Your task to perform on an android device: all mails in gmail Image 0: 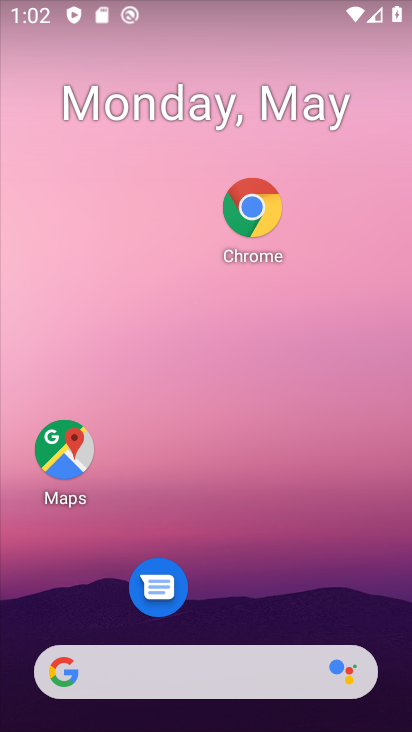
Step 0: drag from (264, 628) to (262, 111)
Your task to perform on an android device: all mails in gmail Image 1: 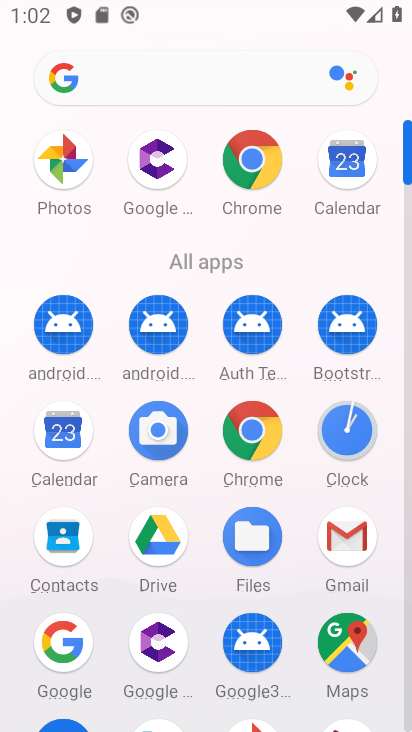
Step 1: click (337, 552)
Your task to perform on an android device: all mails in gmail Image 2: 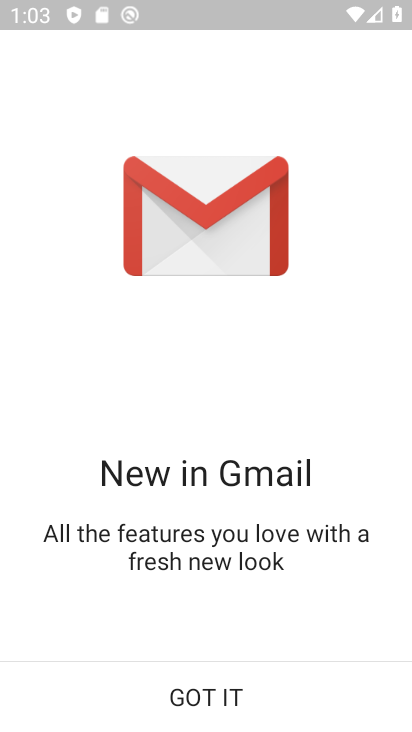
Step 2: click (185, 687)
Your task to perform on an android device: all mails in gmail Image 3: 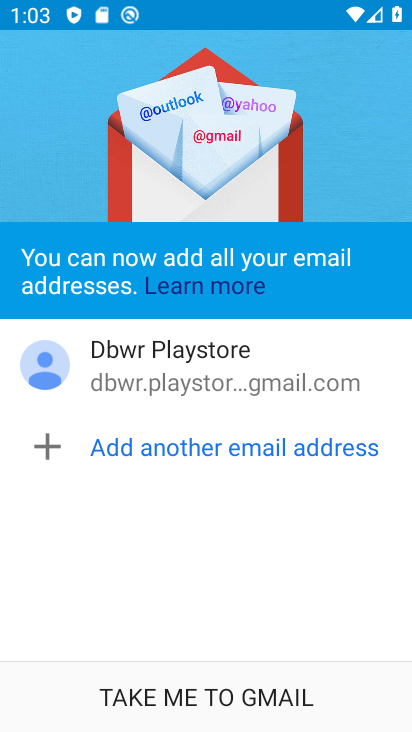
Step 3: click (185, 691)
Your task to perform on an android device: all mails in gmail Image 4: 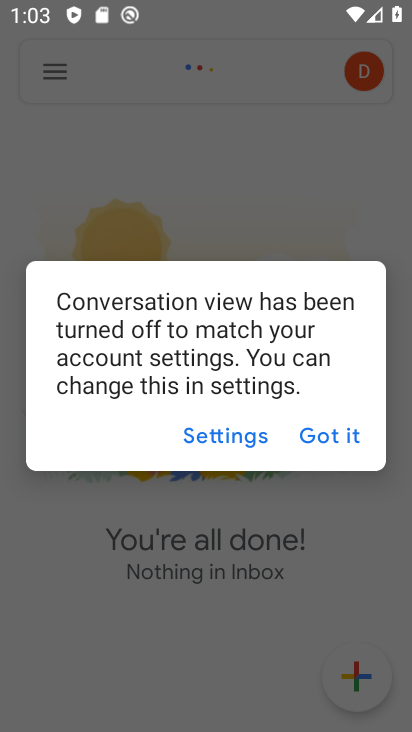
Step 4: click (332, 449)
Your task to perform on an android device: all mails in gmail Image 5: 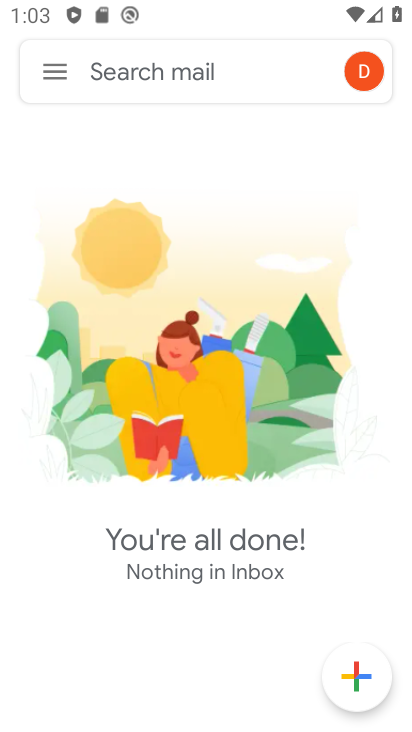
Step 5: click (61, 68)
Your task to perform on an android device: all mails in gmail Image 6: 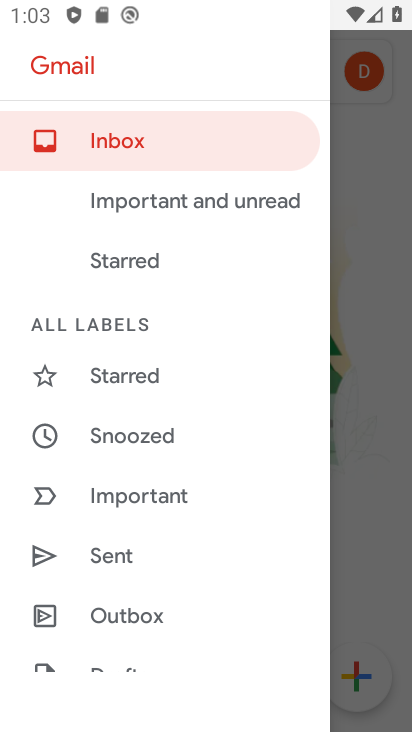
Step 6: drag from (156, 464) to (222, 180)
Your task to perform on an android device: all mails in gmail Image 7: 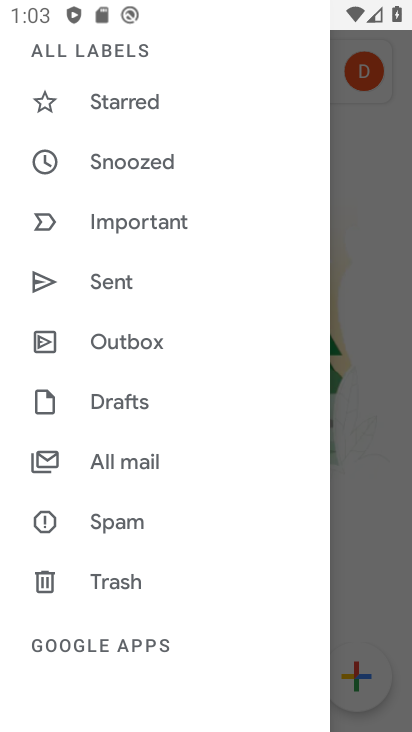
Step 7: click (134, 466)
Your task to perform on an android device: all mails in gmail Image 8: 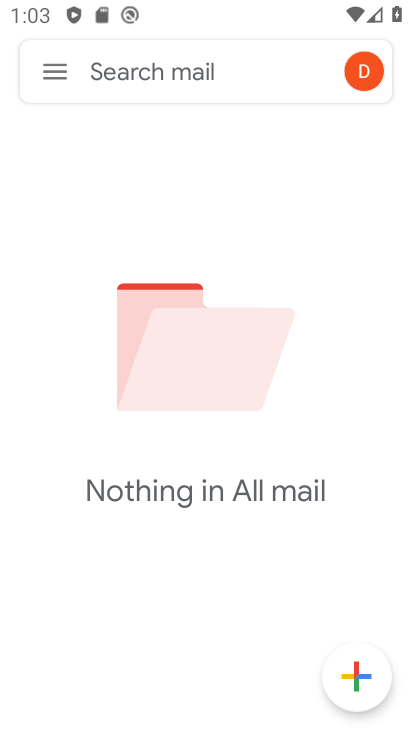
Step 8: task complete